Your task to perform on an android device: Open my contact list Image 0: 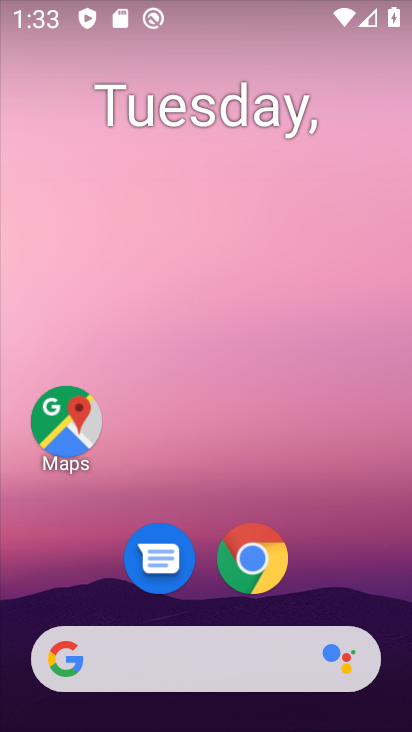
Step 0: drag from (248, 485) to (317, 16)
Your task to perform on an android device: Open my contact list Image 1: 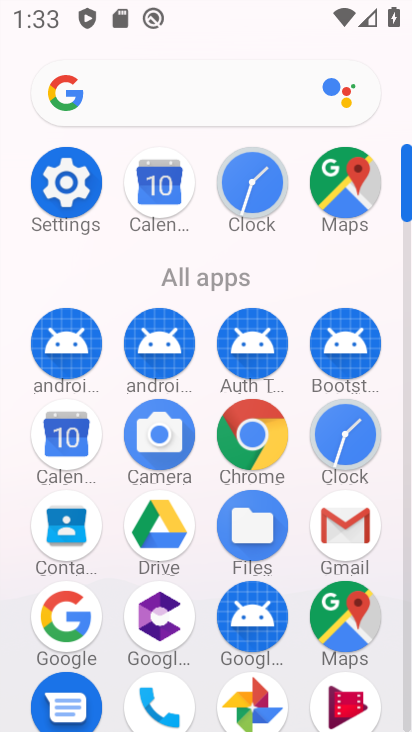
Step 1: click (79, 528)
Your task to perform on an android device: Open my contact list Image 2: 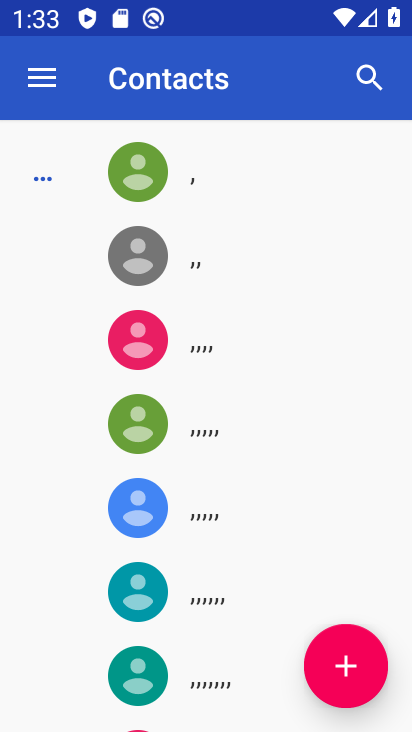
Step 2: click (334, 665)
Your task to perform on an android device: Open my contact list Image 3: 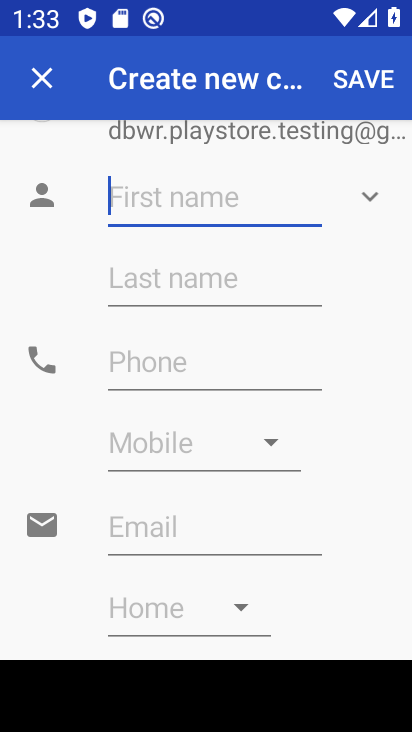
Step 3: click (148, 192)
Your task to perform on an android device: Open my contact list Image 4: 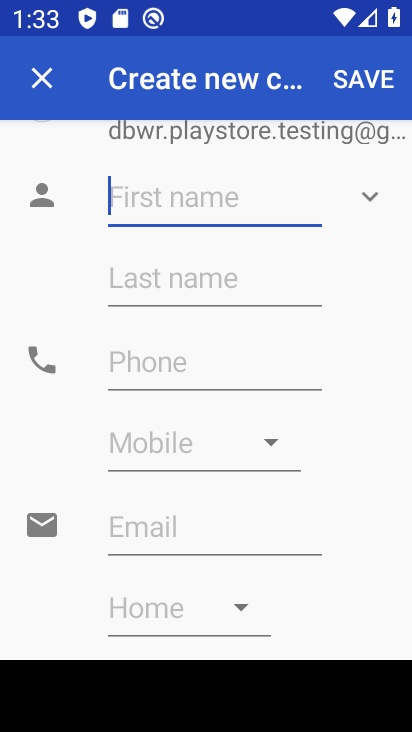
Step 4: click (41, 71)
Your task to perform on an android device: Open my contact list Image 5: 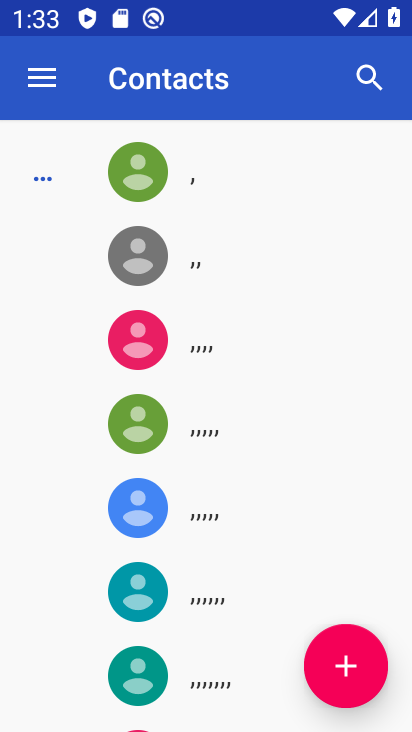
Step 5: task complete